Your task to perform on an android device: turn on priority inbox in the gmail app Image 0: 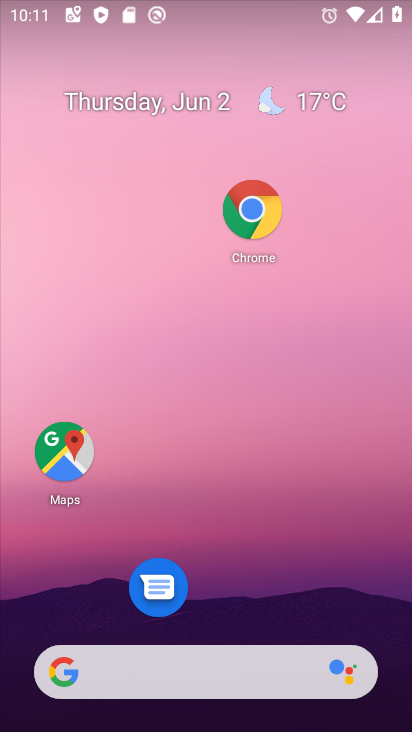
Step 0: press home button
Your task to perform on an android device: turn on priority inbox in the gmail app Image 1: 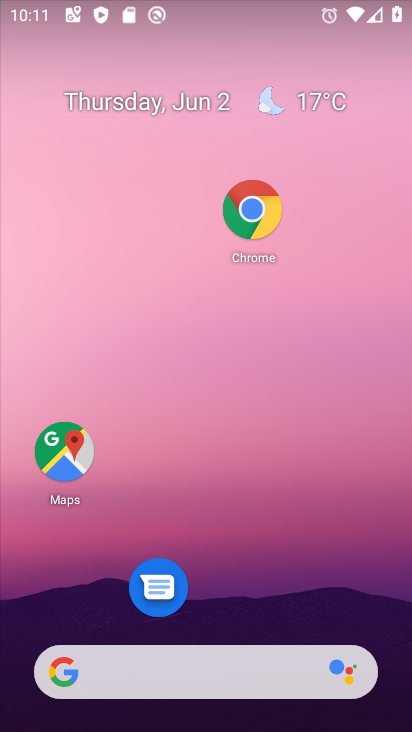
Step 1: drag from (215, 623) to (223, 50)
Your task to perform on an android device: turn on priority inbox in the gmail app Image 2: 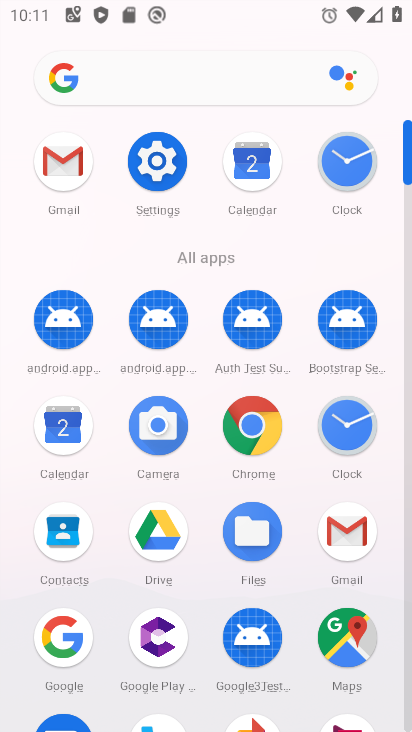
Step 2: click (58, 149)
Your task to perform on an android device: turn on priority inbox in the gmail app Image 3: 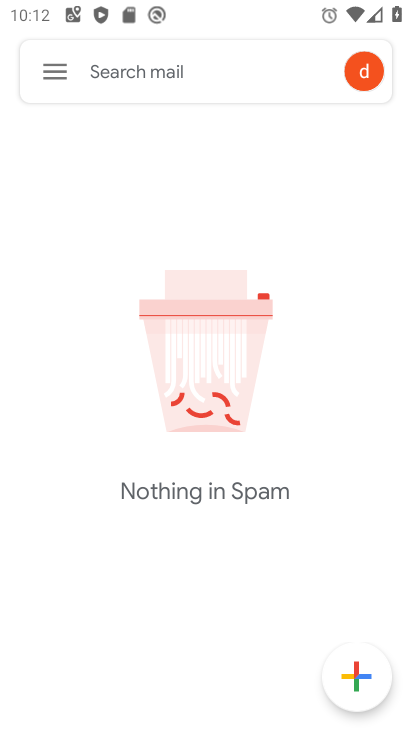
Step 3: click (46, 68)
Your task to perform on an android device: turn on priority inbox in the gmail app Image 4: 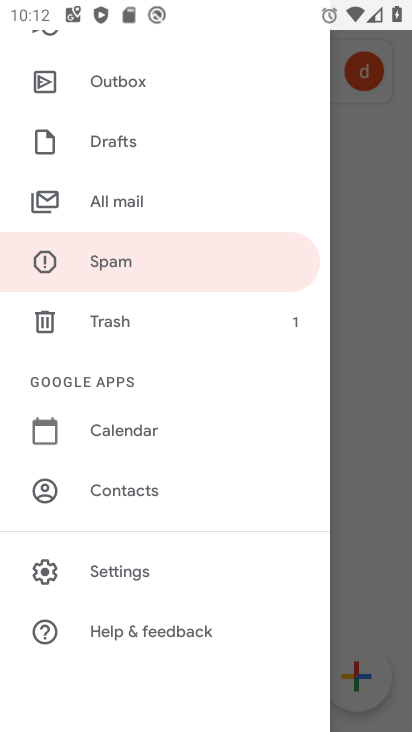
Step 4: click (153, 568)
Your task to perform on an android device: turn on priority inbox in the gmail app Image 5: 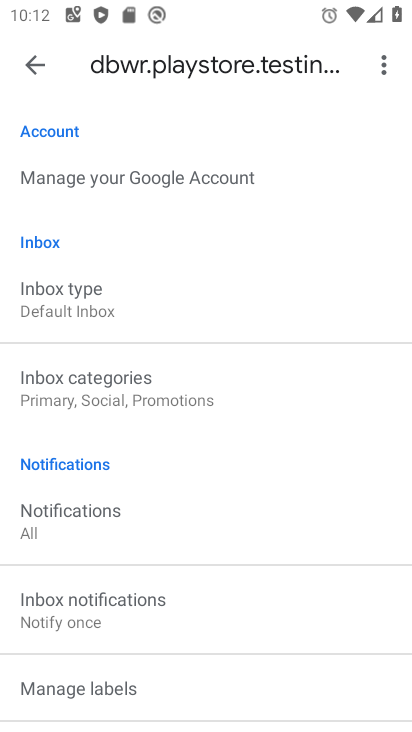
Step 5: click (122, 306)
Your task to perform on an android device: turn on priority inbox in the gmail app Image 6: 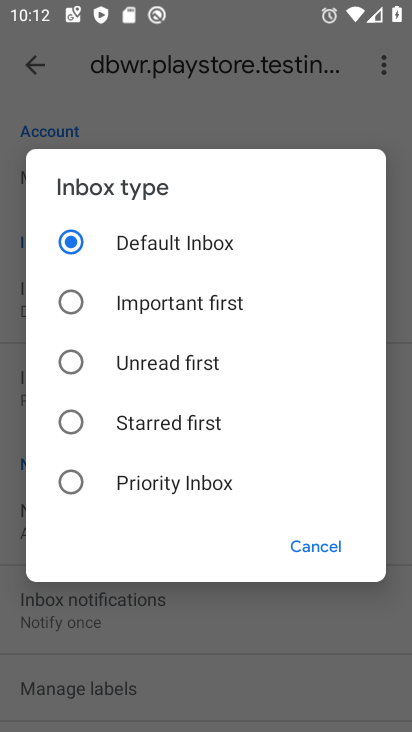
Step 6: click (77, 472)
Your task to perform on an android device: turn on priority inbox in the gmail app Image 7: 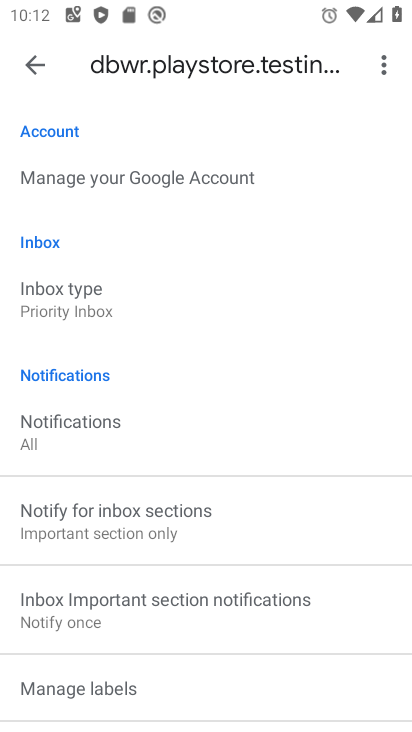
Step 7: task complete